Your task to perform on an android device: turn off priority inbox in the gmail app Image 0: 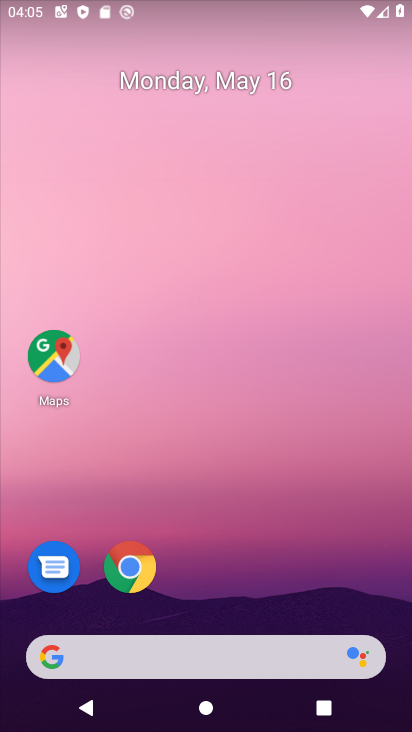
Step 0: drag from (260, 688) to (295, 3)
Your task to perform on an android device: turn off priority inbox in the gmail app Image 1: 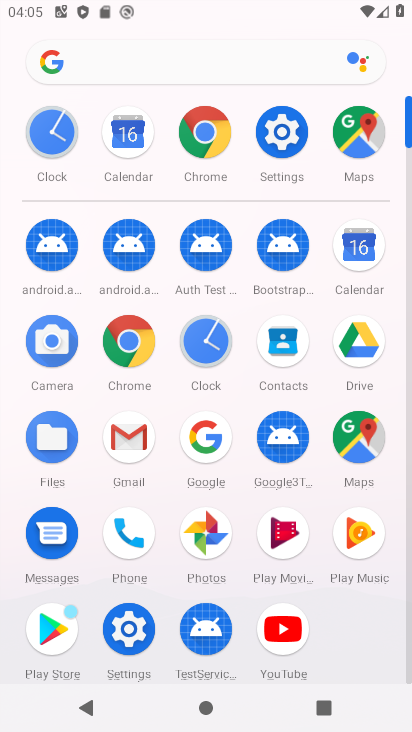
Step 1: click (125, 444)
Your task to perform on an android device: turn off priority inbox in the gmail app Image 2: 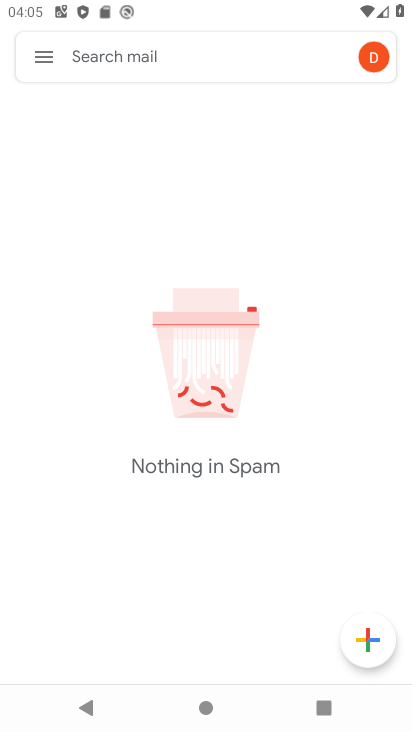
Step 2: click (34, 50)
Your task to perform on an android device: turn off priority inbox in the gmail app Image 3: 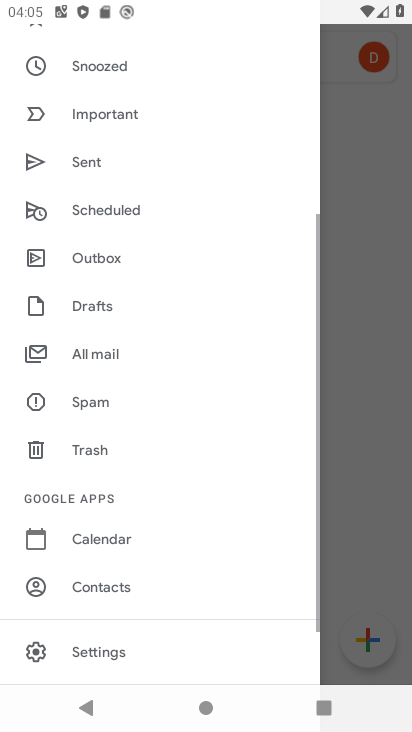
Step 3: drag from (149, 597) to (213, 128)
Your task to perform on an android device: turn off priority inbox in the gmail app Image 4: 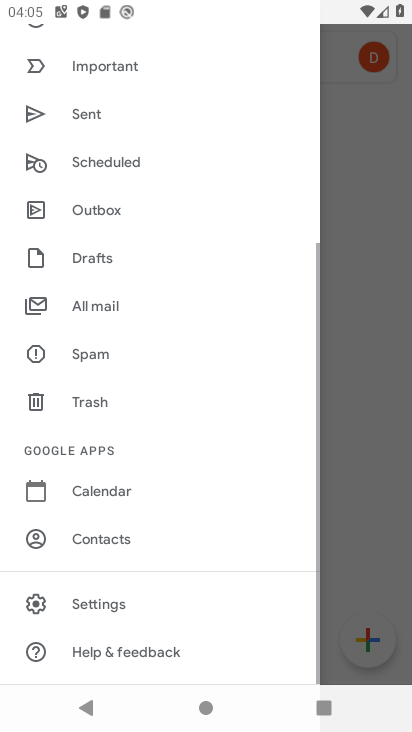
Step 4: click (126, 599)
Your task to perform on an android device: turn off priority inbox in the gmail app Image 5: 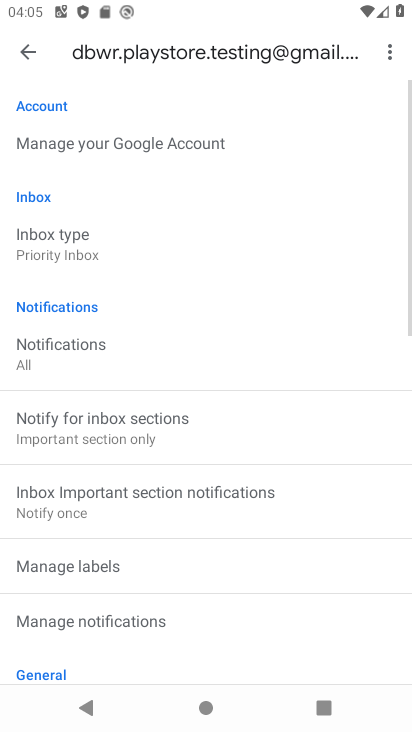
Step 5: click (95, 246)
Your task to perform on an android device: turn off priority inbox in the gmail app Image 6: 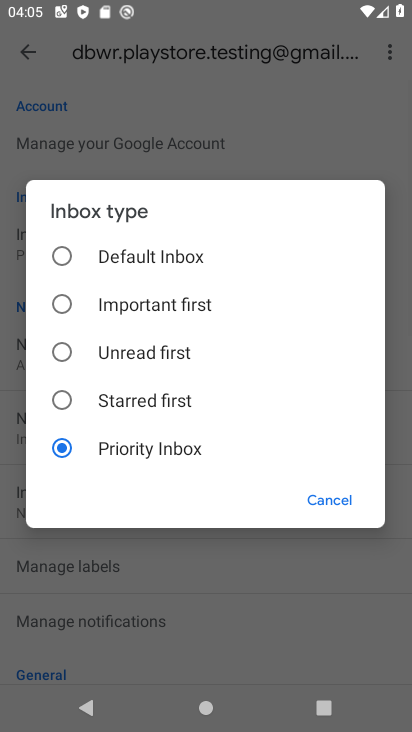
Step 6: click (68, 252)
Your task to perform on an android device: turn off priority inbox in the gmail app Image 7: 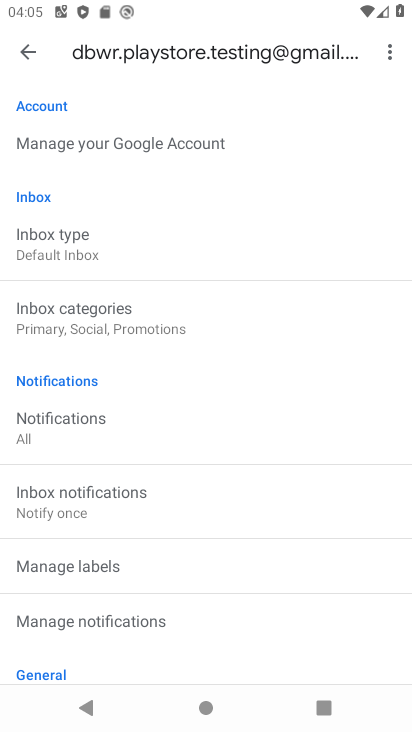
Step 7: task complete